Your task to perform on an android device: change the clock display to analog Image 0: 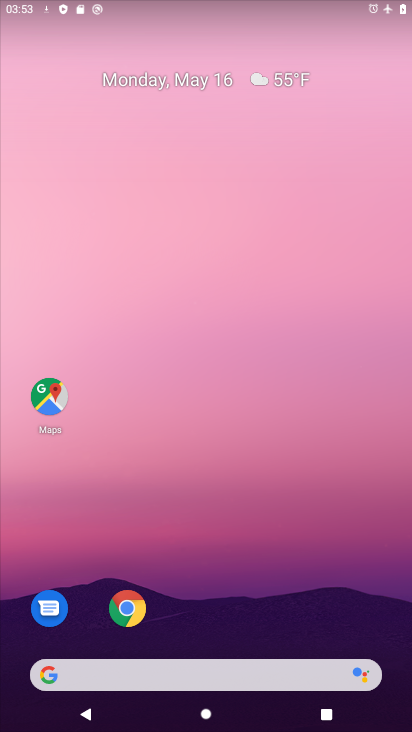
Step 0: drag from (223, 619) to (239, 253)
Your task to perform on an android device: change the clock display to analog Image 1: 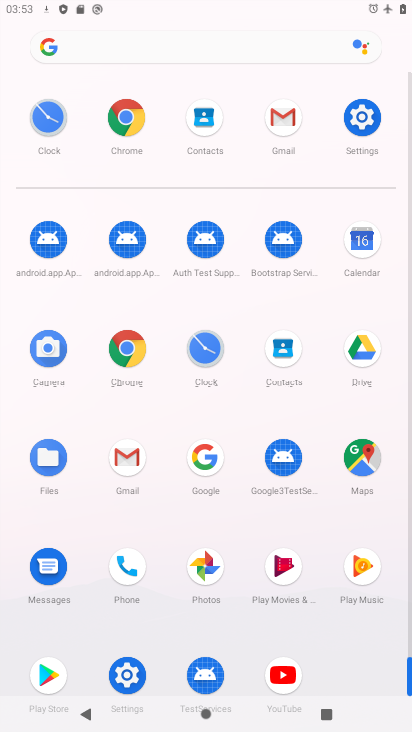
Step 1: click (203, 355)
Your task to perform on an android device: change the clock display to analog Image 2: 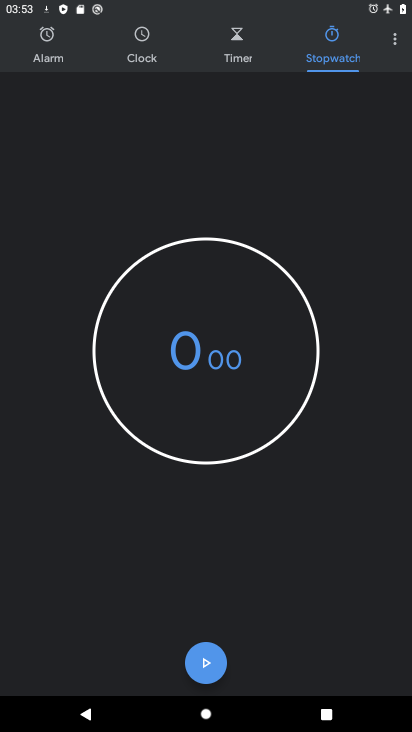
Step 2: click (397, 39)
Your task to perform on an android device: change the clock display to analog Image 3: 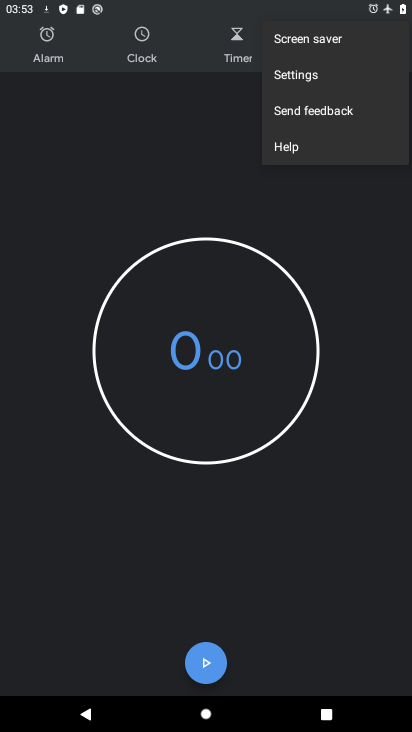
Step 3: click (300, 75)
Your task to perform on an android device: change the clock display to analog Image 4: 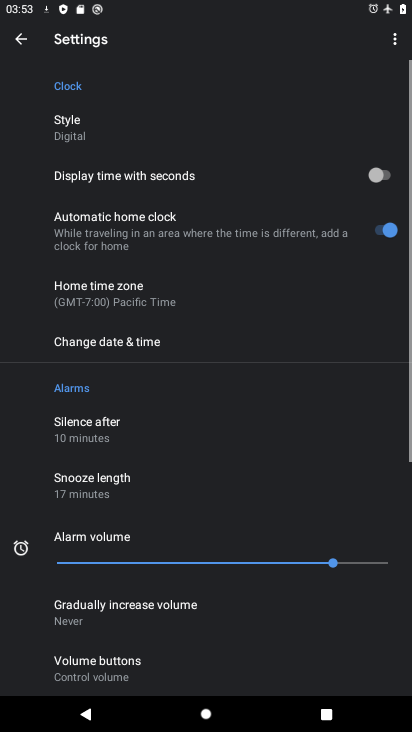
Step 4: click (105, 127)
Your task to perform on an android device: change the clock display to analog Image 5: 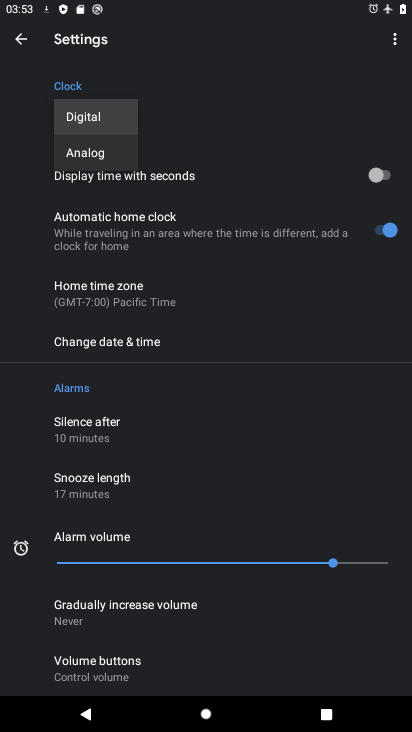
Step 5: click (103, 156)
Your task to perform on an android device: change the clock display to analog Image 6: 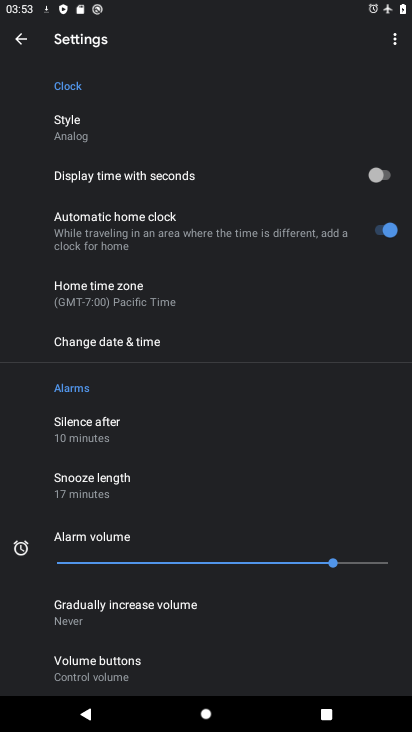
Step 6: task complete